Your task to perform on an android device: all mails in gmail Image 0: 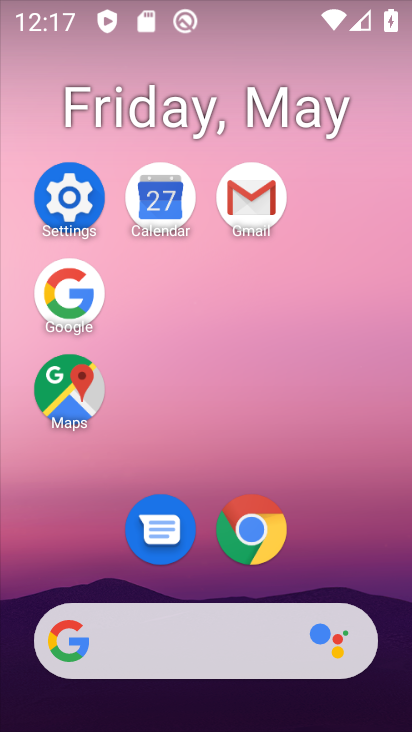
Step 0: click (245, 205)
Your task to perform on an android device: all mails in gmail Image 1: 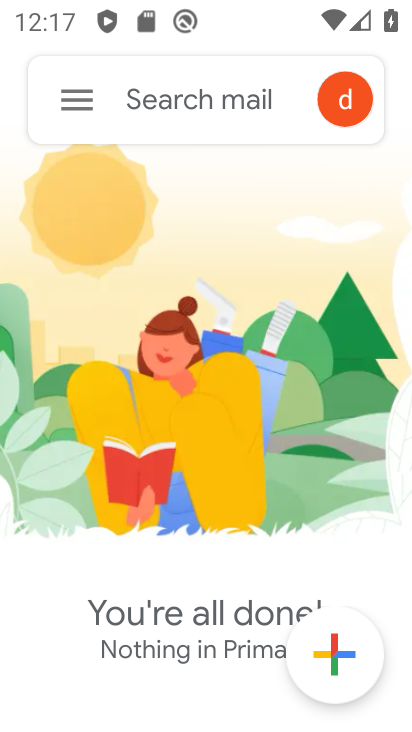
Step 1: click (72, 99)
Your task to perform on an android device: all mails in gmail Image 2: 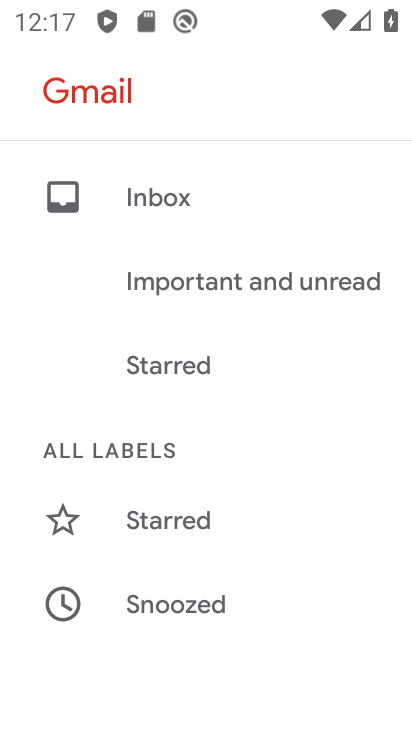
Step 2: drag from (272, 593) to (313, 126)
Your task to perform on an android device: all mails in gmail Image 3: 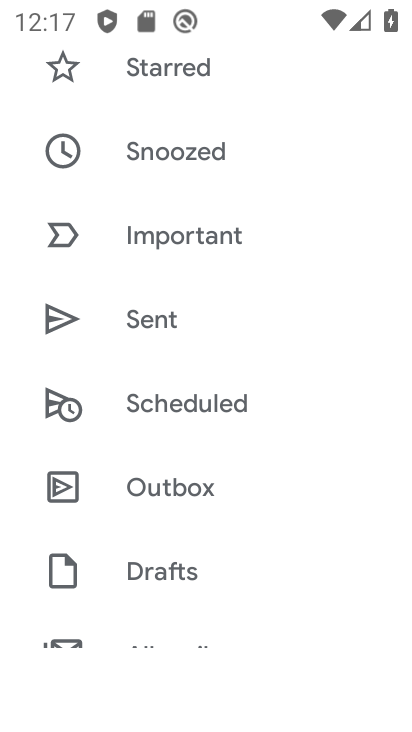
Step 3: drag from (304, 503) to (282, 146)
Your task to perform on an android device: all mails in gmail Image 4: 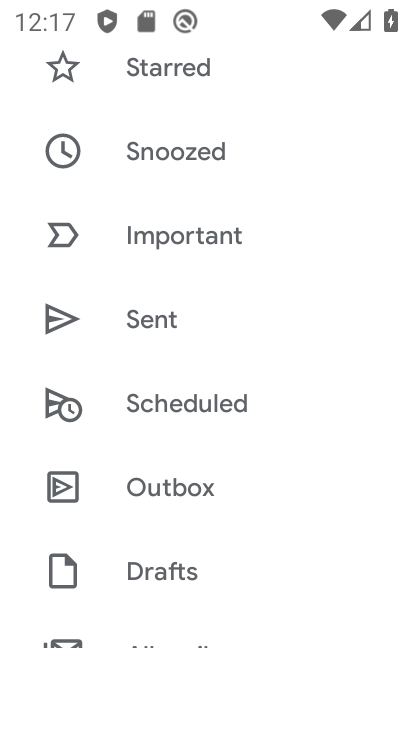
Step 4: drag from (296, 563) to (340, 166)
Your task to perform on an android device: all mails in gmail Image 5: 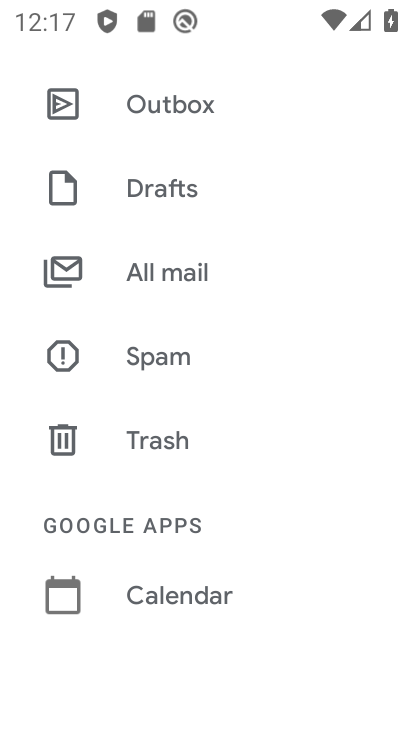
Step 5: click (214, 530)
Your task to perform on an android device: all mails in gmail Image 6: 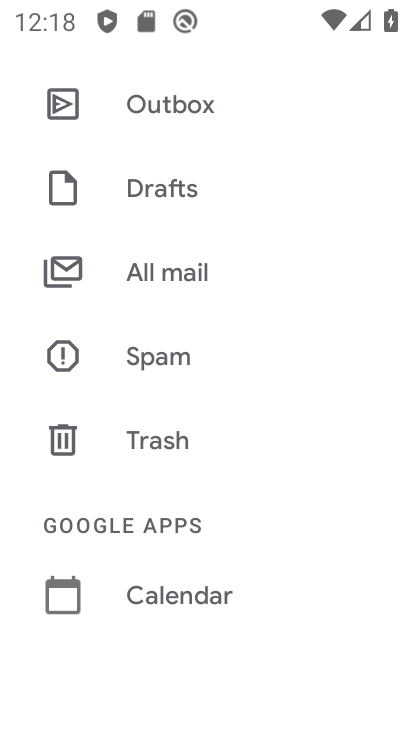
Step 6: click (213, 294)
Your task to perform on an android device: all mails in gmail Image 7: 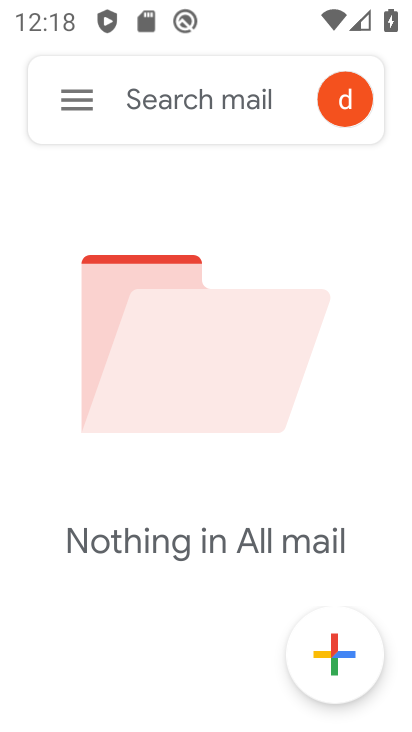
Step 7: task complete